Your task to perform on an android device: Show the shopping cart on walmart. Search for acer nitro on walmart, select the first entry, and add it to the cart. Image 0: 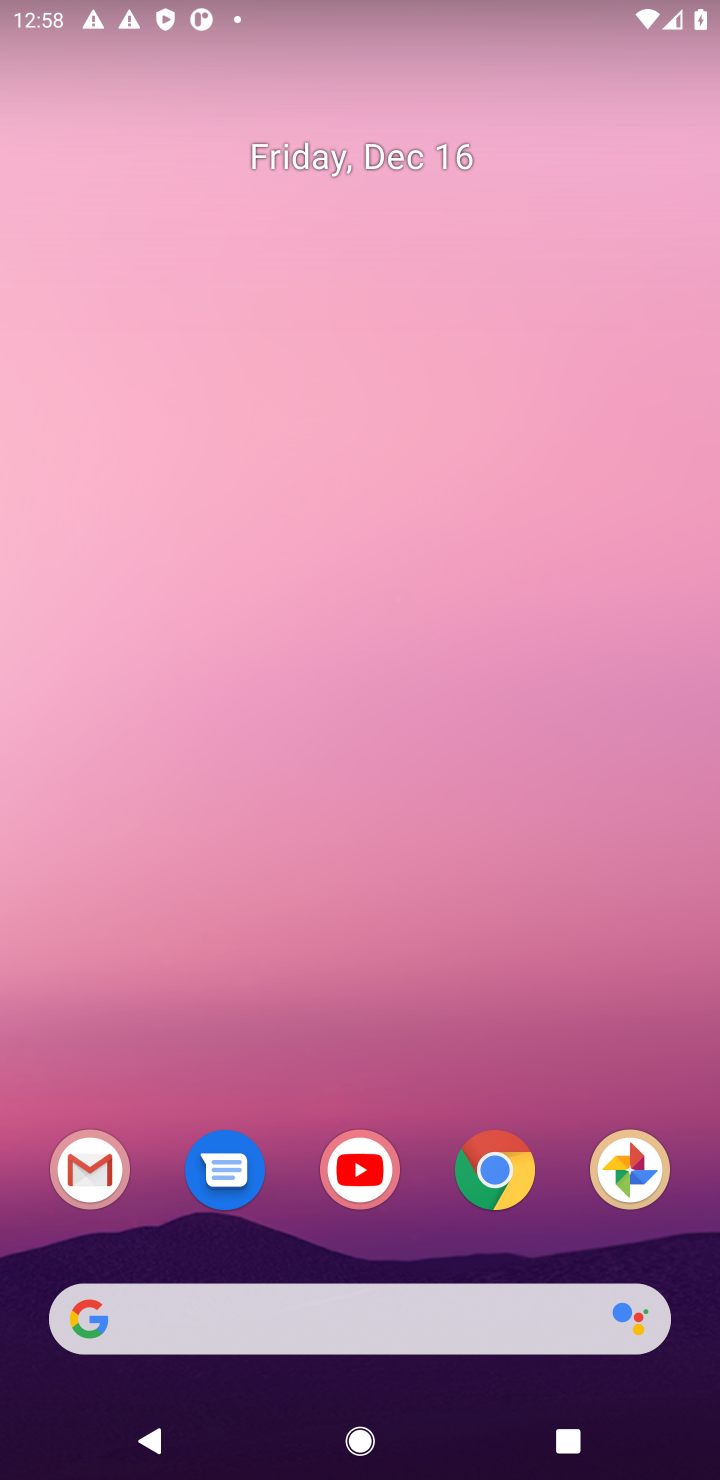
Step 0: click (490, 1172)
Your task to perform on an android device: Show the shopping cart on walmart. Search for acer nitro on walmart, select the first entry, and add it to the cart. Image 1: 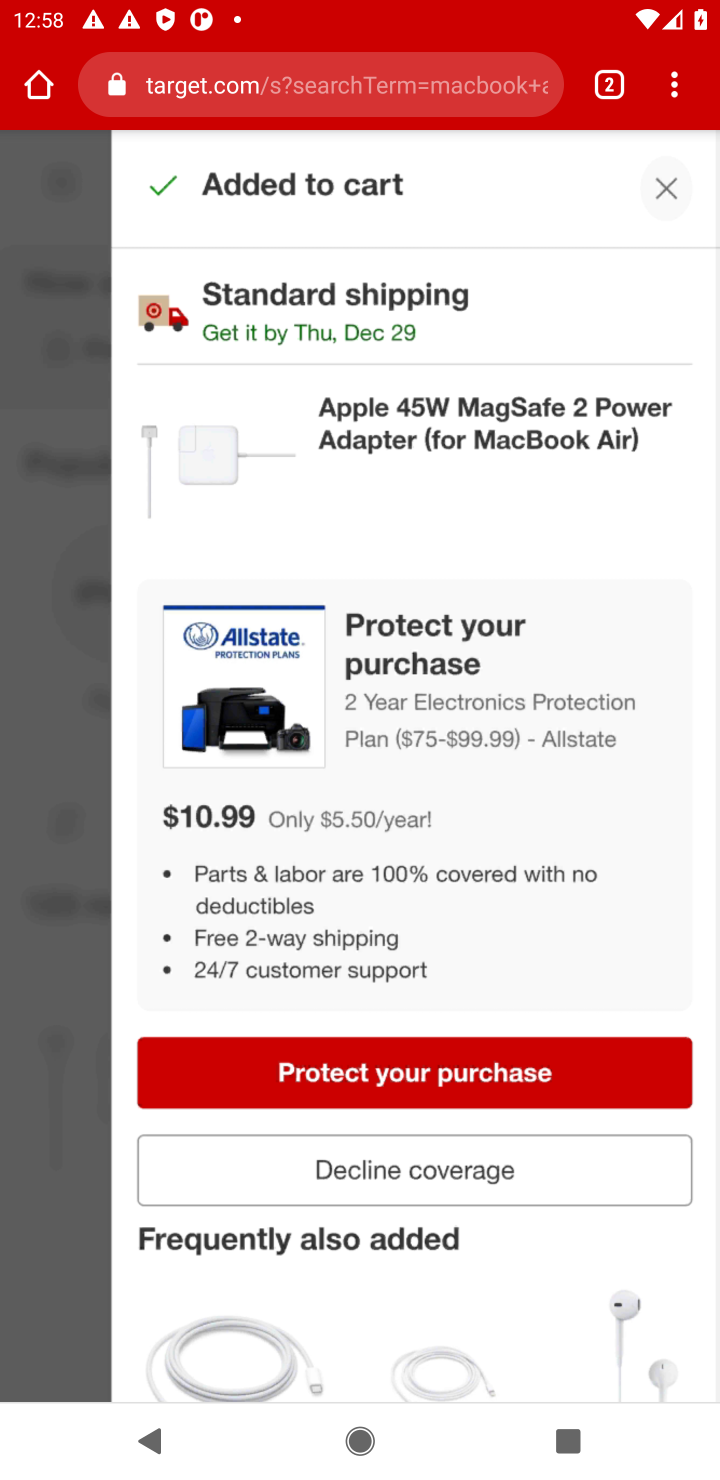
Step 1: click (256, 88)
Your task to perform on an android device: Show the shopping cart on walmart. Search for acer nitro on walmart, select the first entry, and add it to the cart. Image 2: 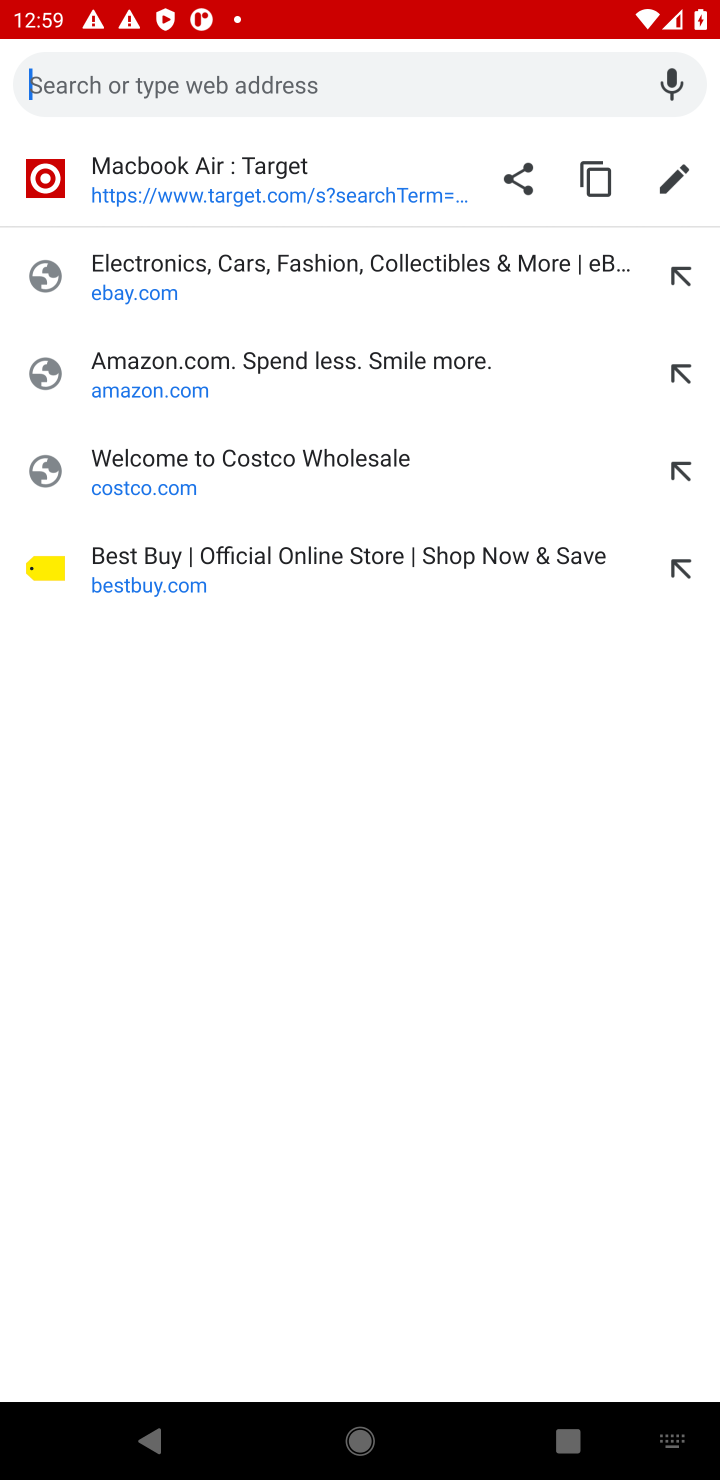
Step 2: type "walmart.com"
Your task to perform on an android device: Show the shopping cart on walmart. Search for acer nitro on walmart, select the first entry, and add it to the cart. Image 3: 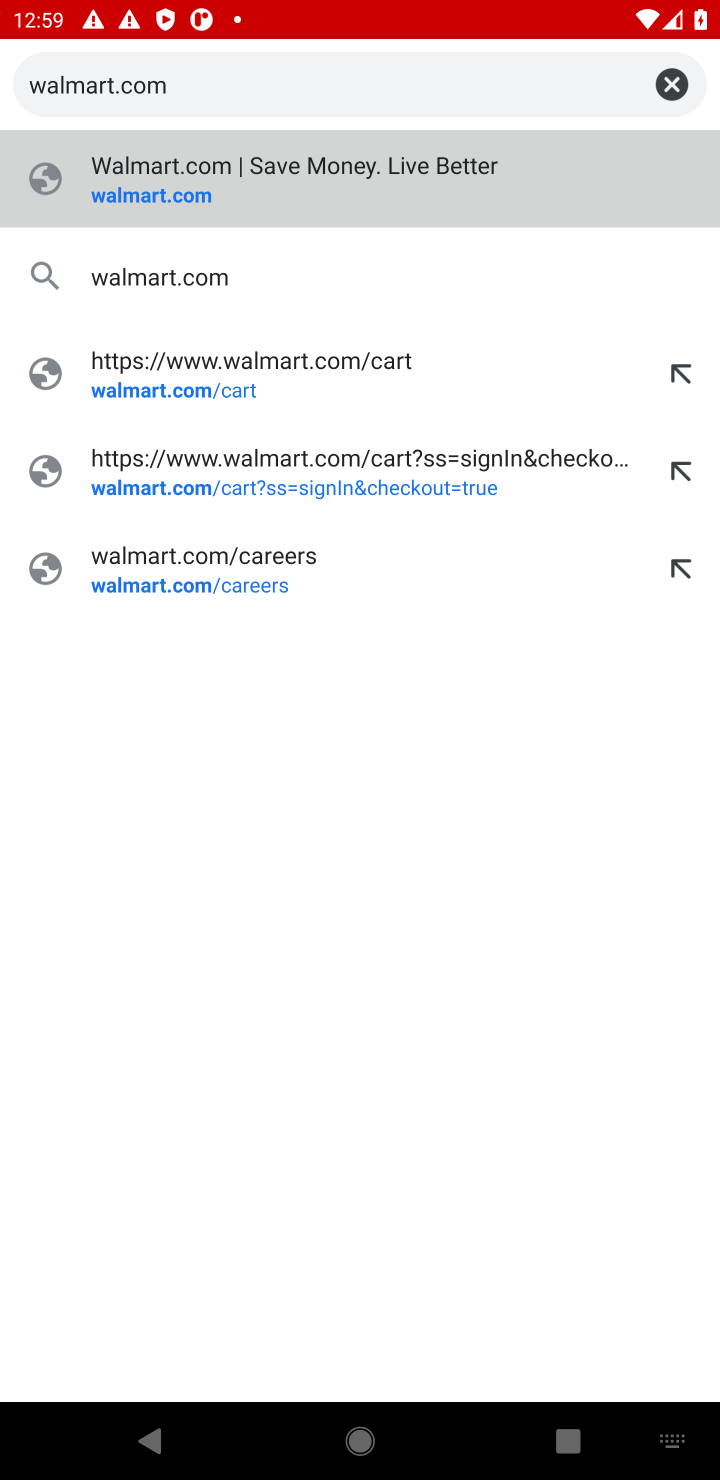
Step 3: click (168, 198)
Your task to perform on an android device: Show the shopping cart on walmart. Search for acer nitro on walmart, select the first entry, and add it to the cart. Image 4: 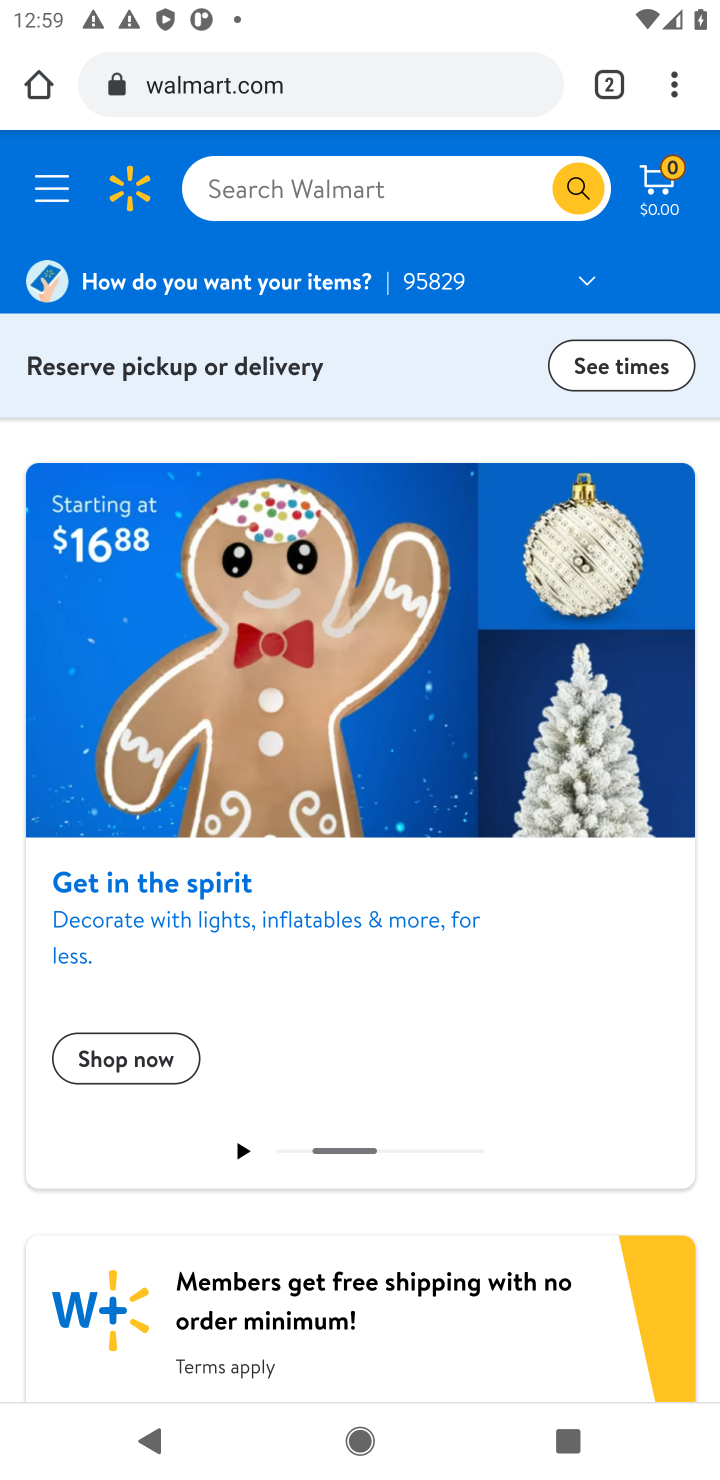
Step 4: click (655, 195)
Your task to perform on an android device: Show the shopping cart on walmart. Search for acer nitro on walmart, select the first entry, and add it to the cart. Image 5: 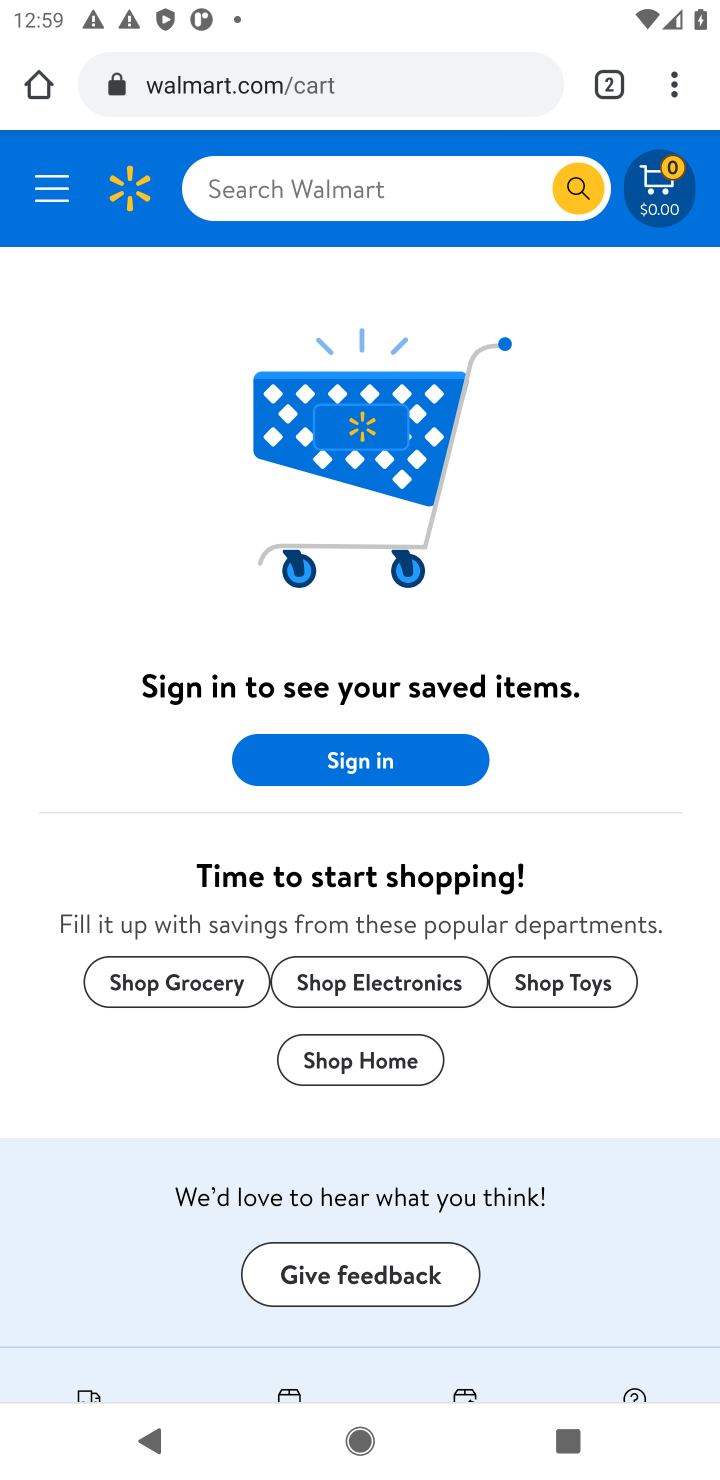
Step 5: click (267, 183)
Your task to perform on an android device: Show the shopping cart on walmart. Search for acer nitro on walmart, select the first entry, and add it to the cart. Image 6: 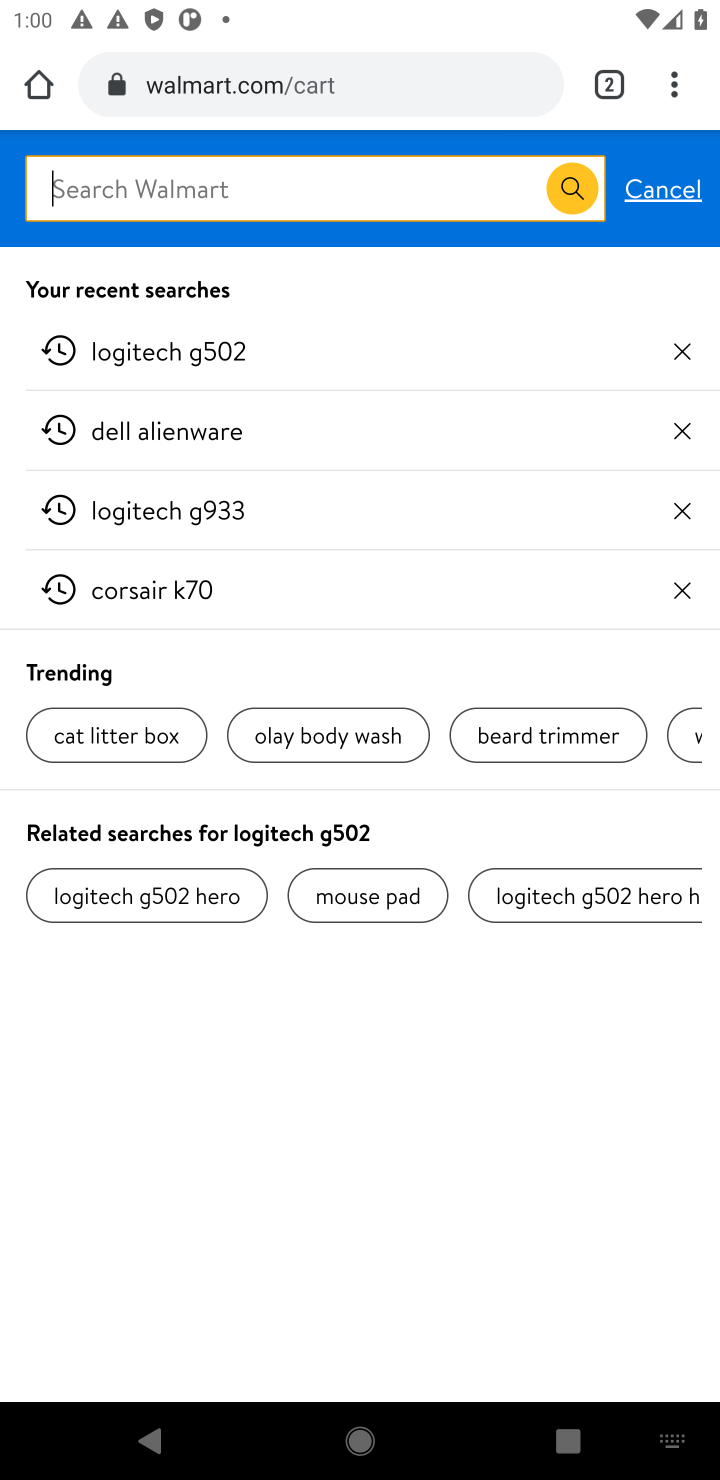
Step 6: type "acer nitro"
Your task to perform on an android device: Show the shopping cart on walmart. Search for acer nitro on walmart, select the first entry, and add it to the cart. Image 7: 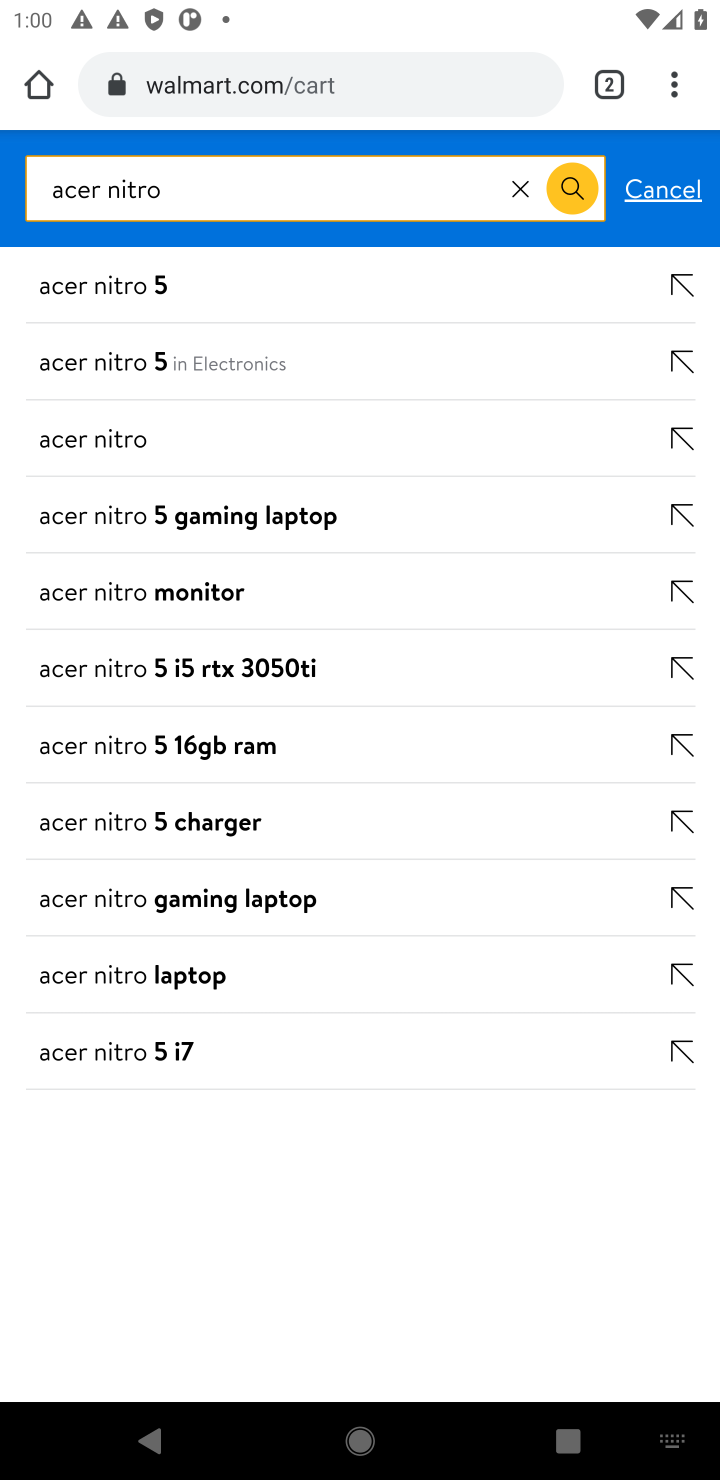
Step 7: click (79, 447)
Your task to perform on an android device: Show the shopping cart on walmart. Search for acer nitro on walmart, select the first entry, and add it to the cart. Image 8: 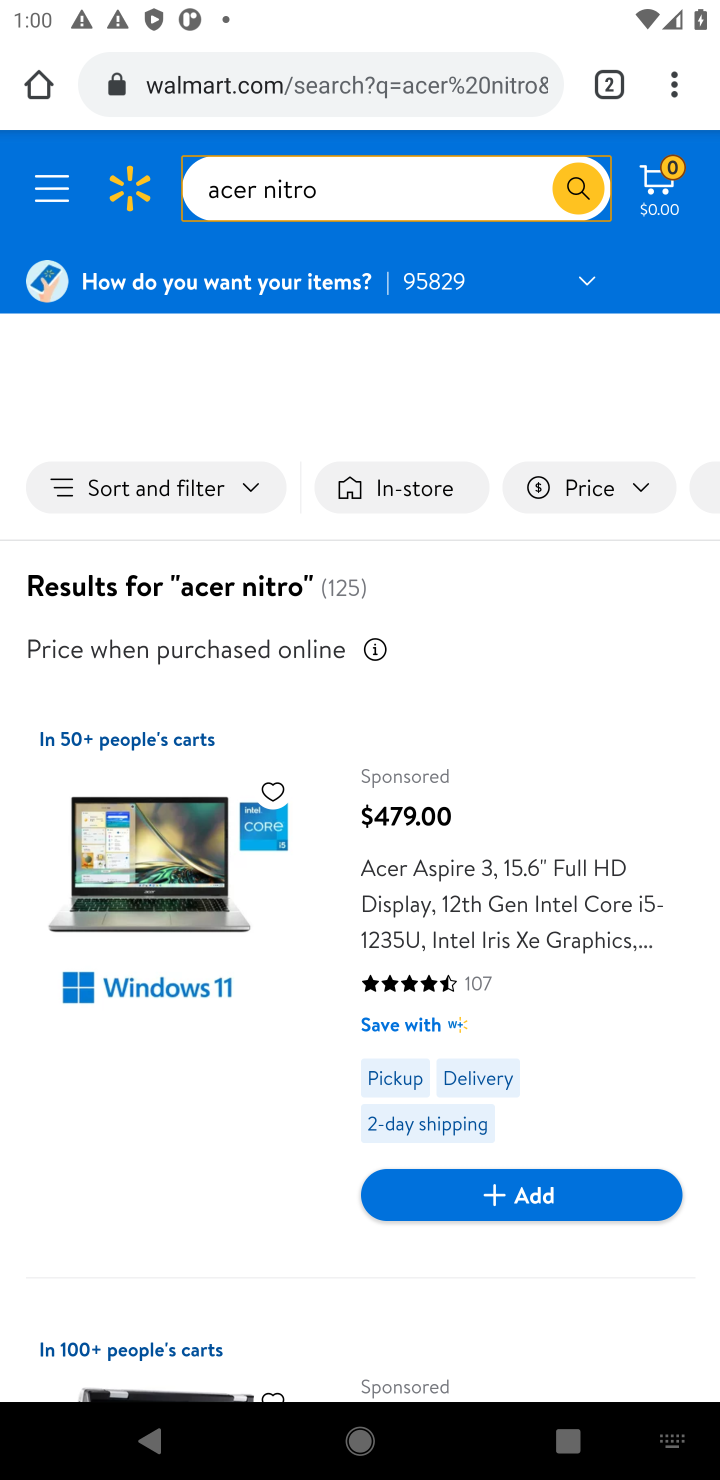
Step 8: task complete